Your task to perform on an android device: Check the weather Image 0: 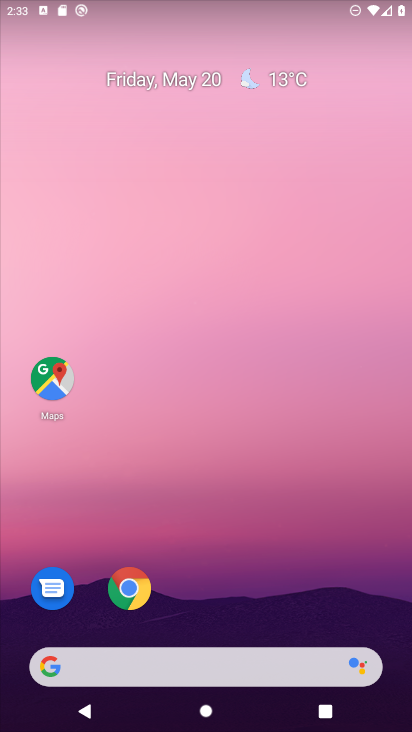
Step 0: click (285, 77)
Your task to perform on an android device: Check the weather Image 1: 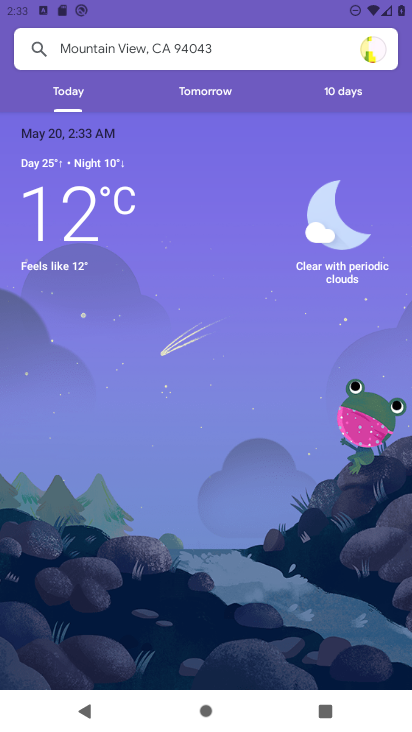
Step 1: task complete